Your task to perform on an android device: manage bookmarks in the chrome app Image 0: 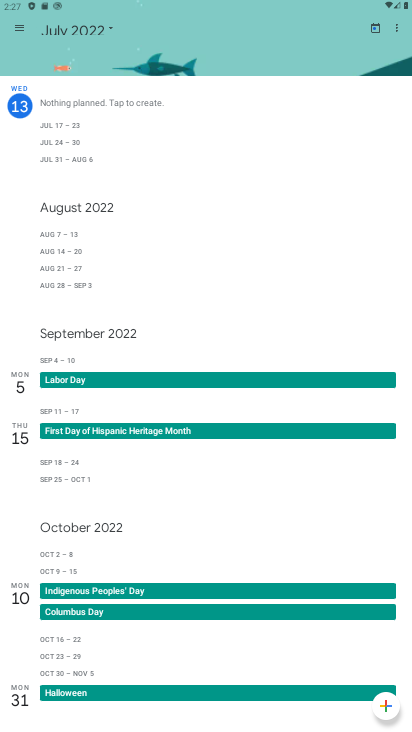
Step 0: press home button
Your task to perform on an android device: manage bookmarks in the chrome app Image 1: 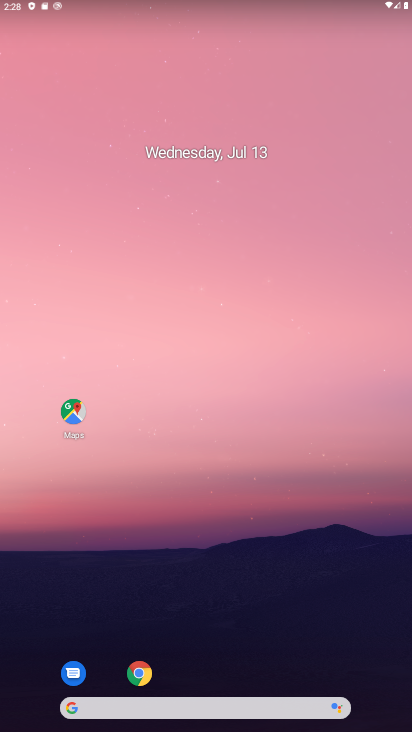
Step 1: click (141, 672)
Your task to perform on an android device: manage bookmarks in the chrome app Image 2: 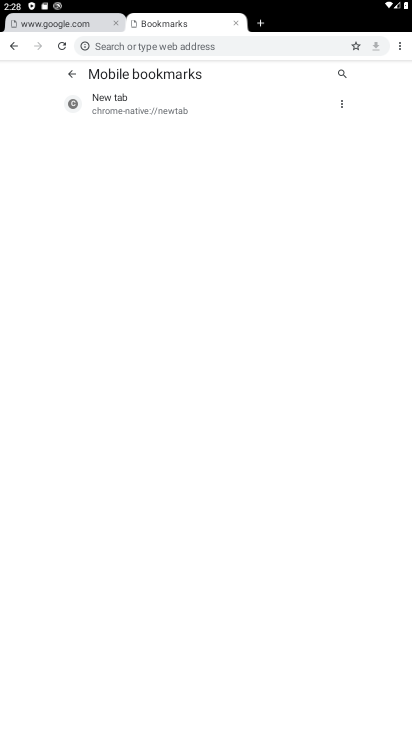
Step 2: click (338, 102)
Your task to perform on an android device: manage bookmarks in the chrome app Image 3: 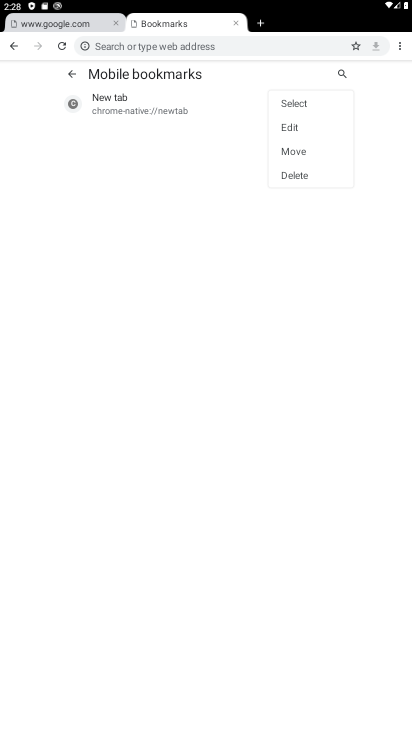
Step 3: click (304, 130)
Your task to perform on an android device: manage bookmarks in the chrome app Image 4: 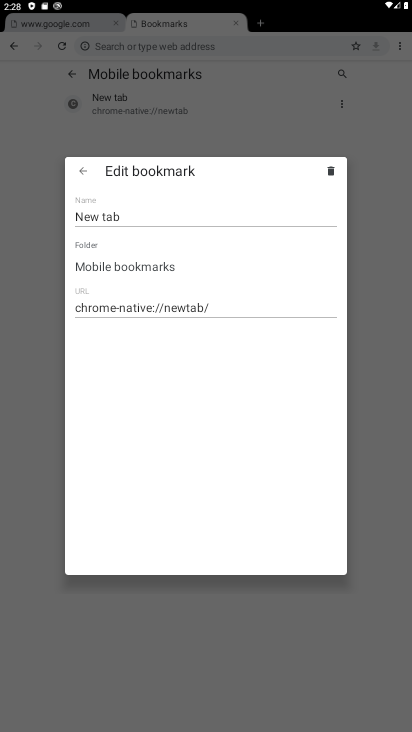
Step 4: click (336, 174)
Your task to perform on an android device: manage bookmarks in the chrome app Image 5: 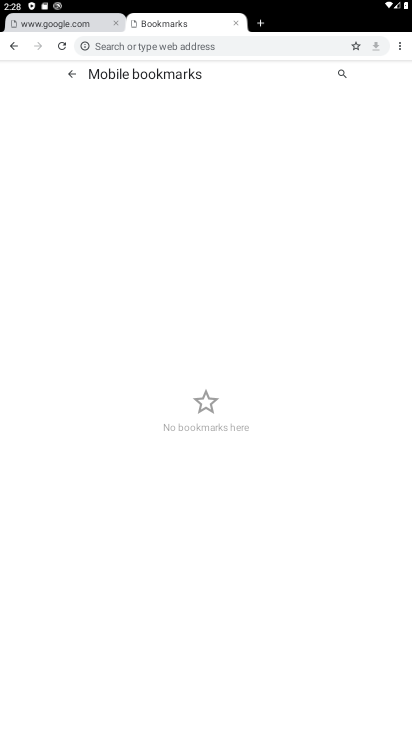
Step 5: task complete